Your task to perform on an android device: open a new tab in the chrome app Image 0: 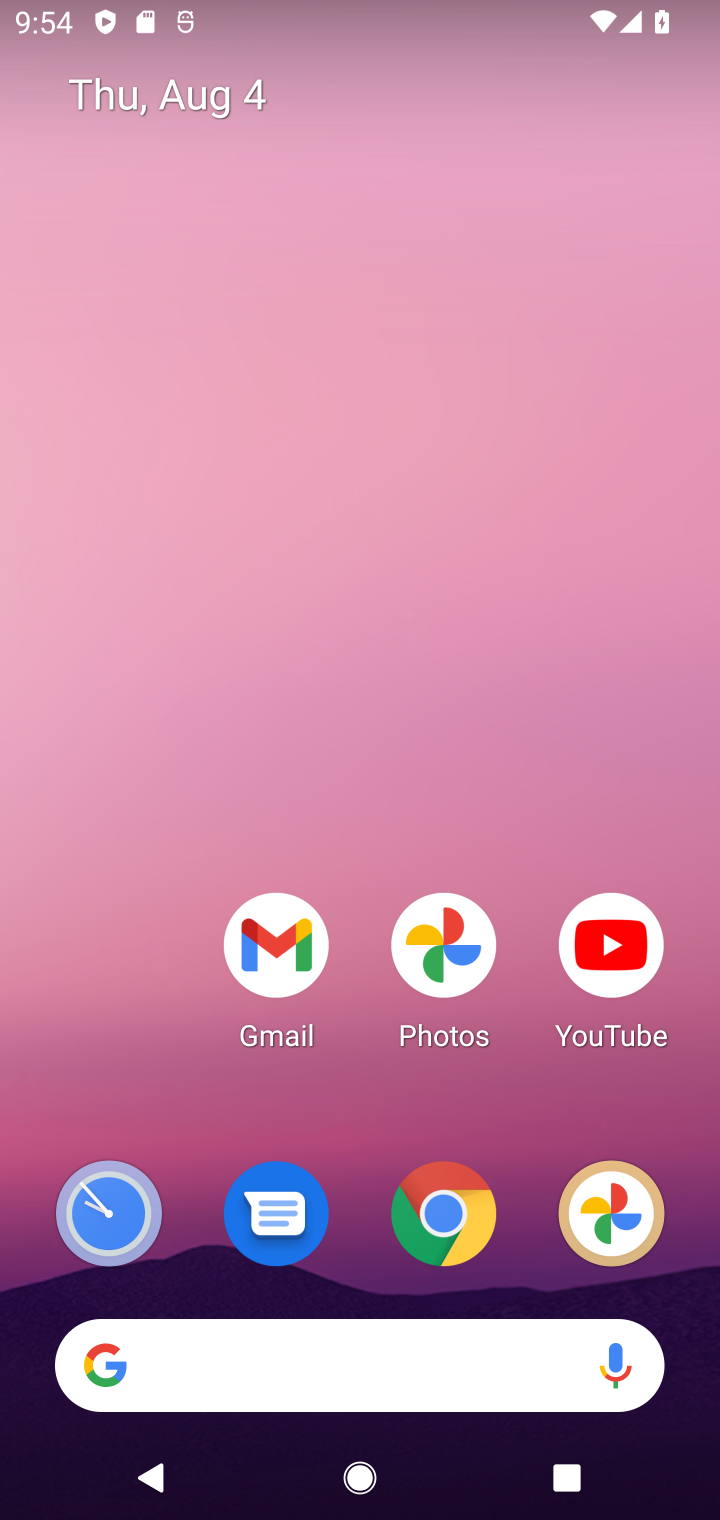
Step 0: click (466, 1233)
Your task to perform on an android device: open a new tab in the chrome app Image 1: 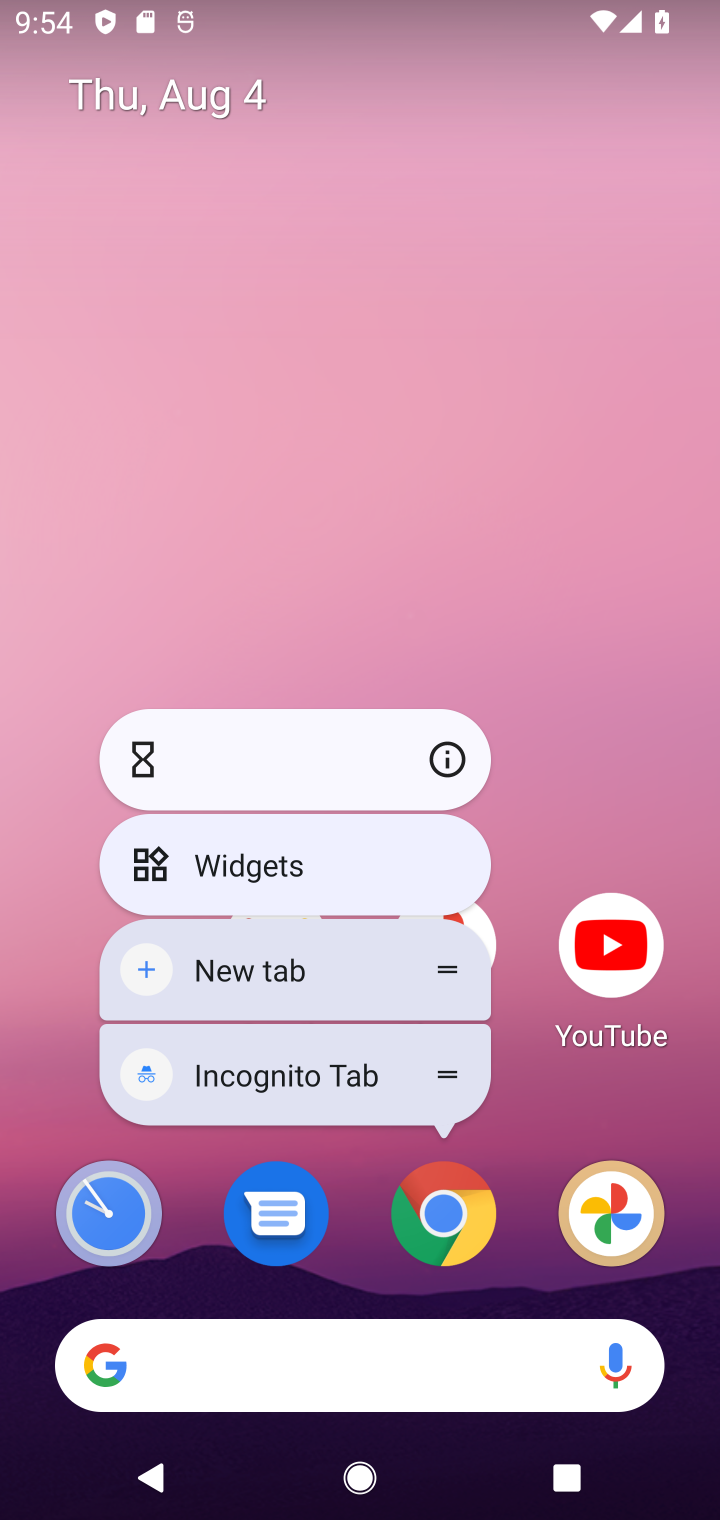
Step 1: click (418, 1206)
Your task to perform on an android device: open a new tab in the chrome app Image 2: 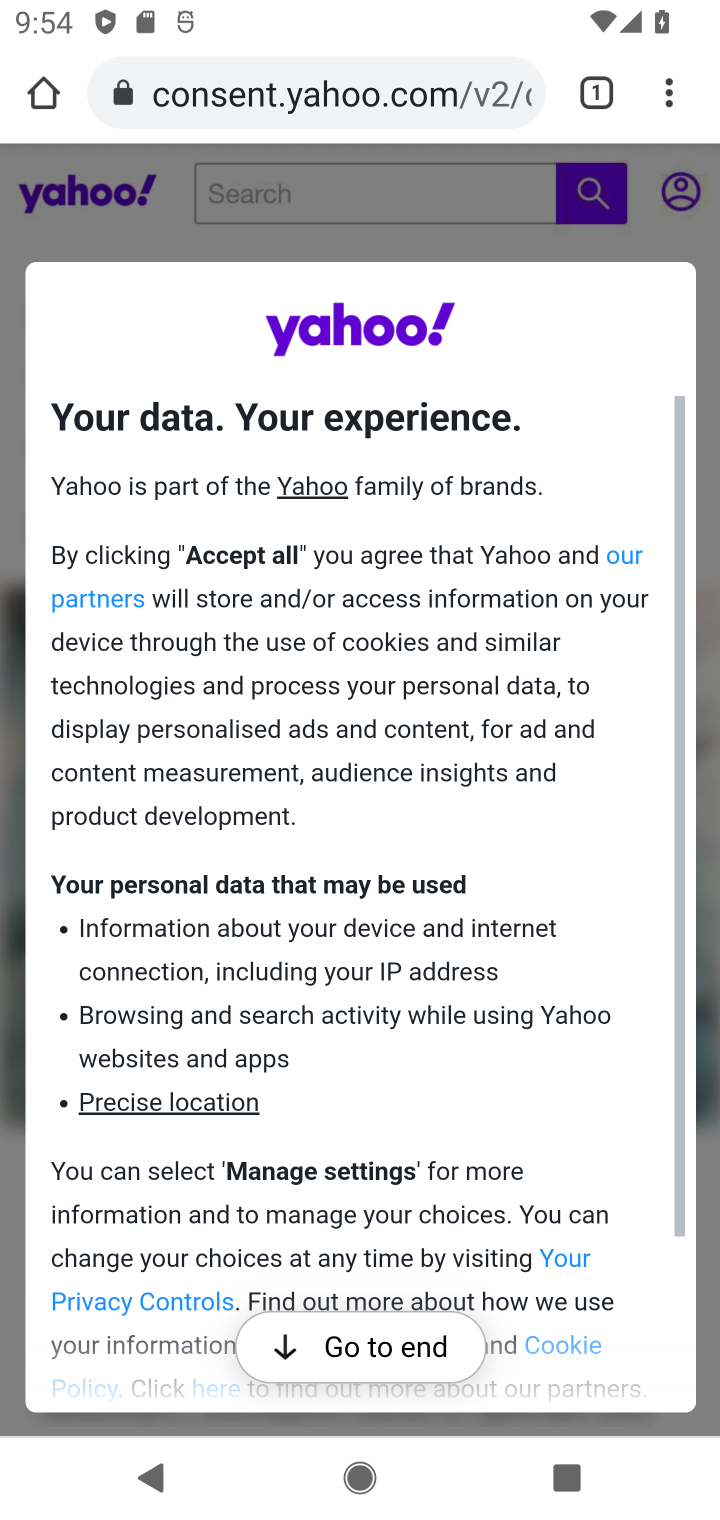
Step 2: click (598, 102)
Your task to perform on an android device: open a new tab in the chrome app Image 3: 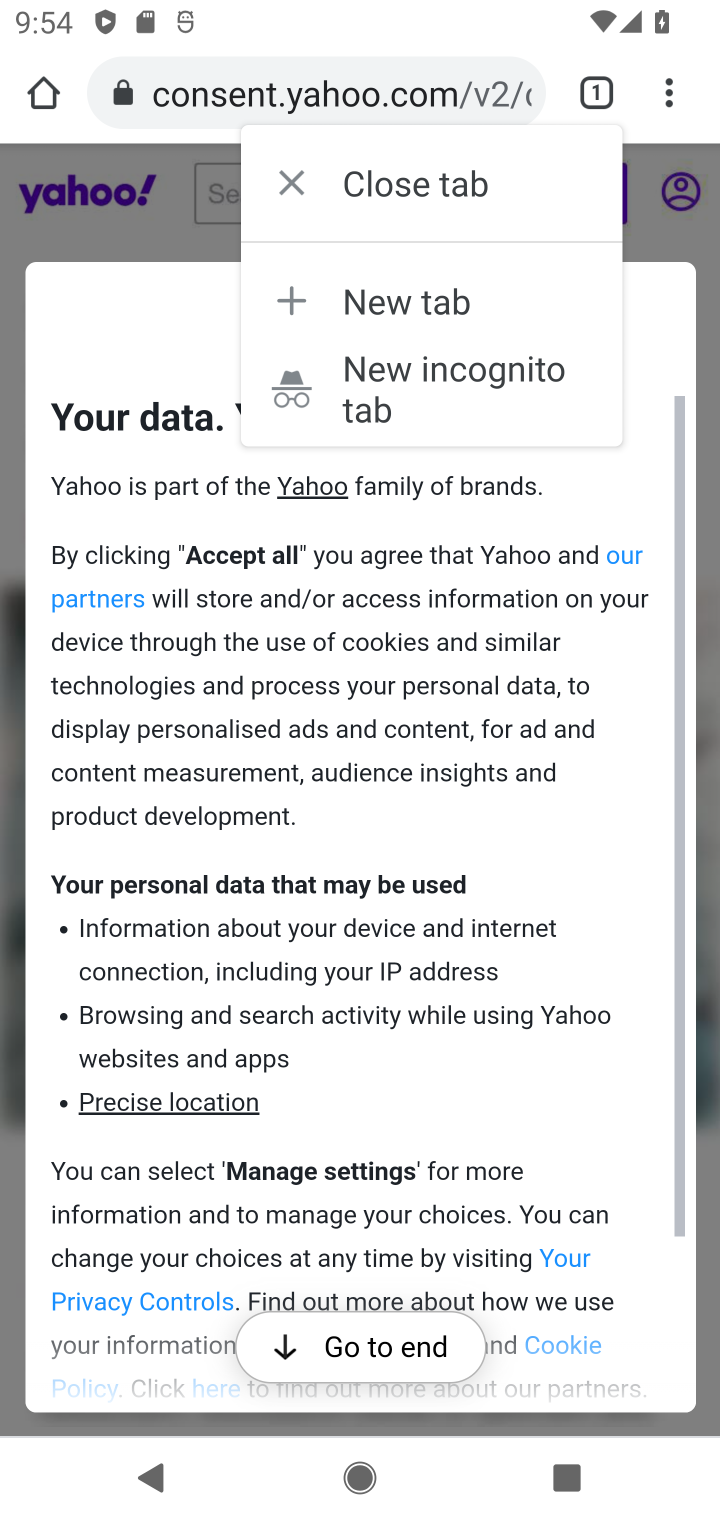
Step 3: click (448, 313)
Your task to perform on an android device: open a new tab in the chrome app Image 4: 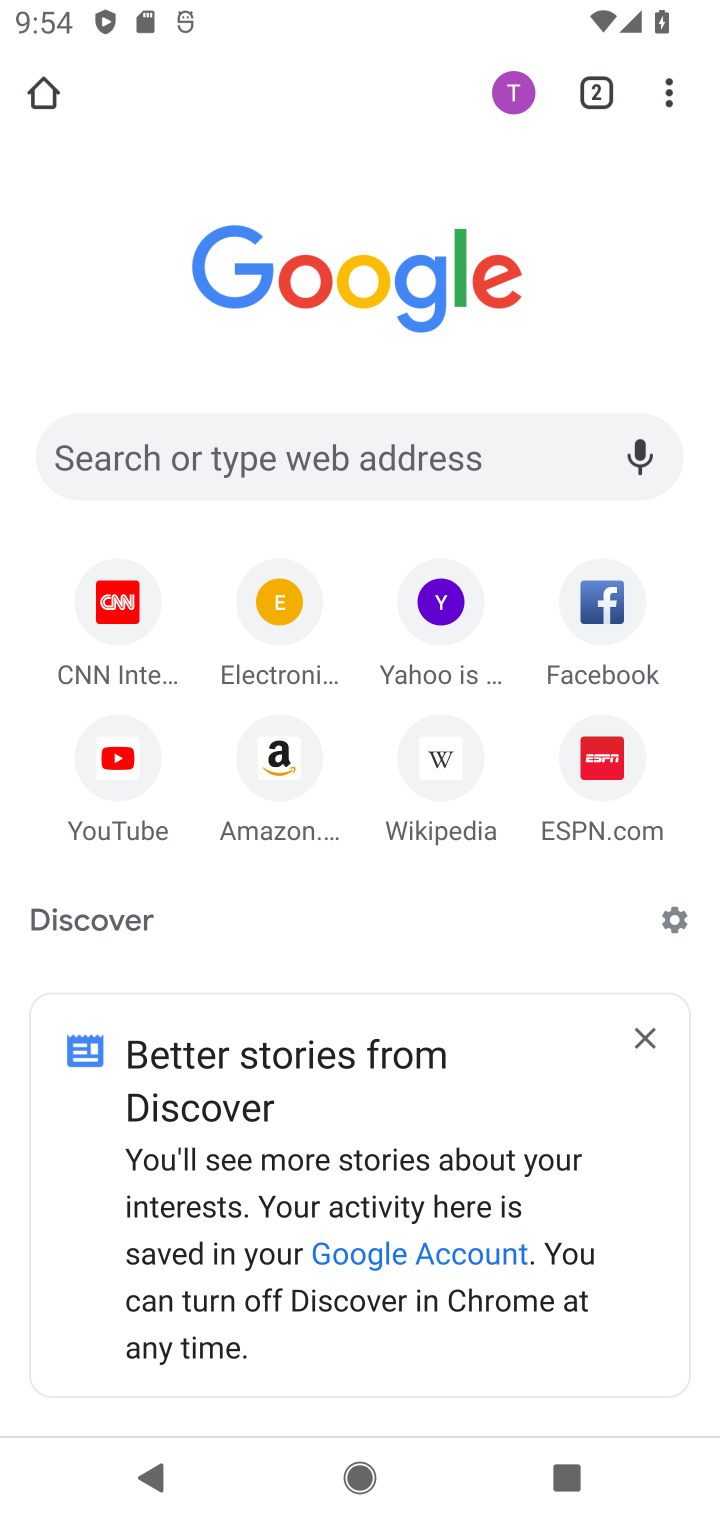
Step 4: task complete